Your task to perform on an android device: When is my next appointment? Image 0: 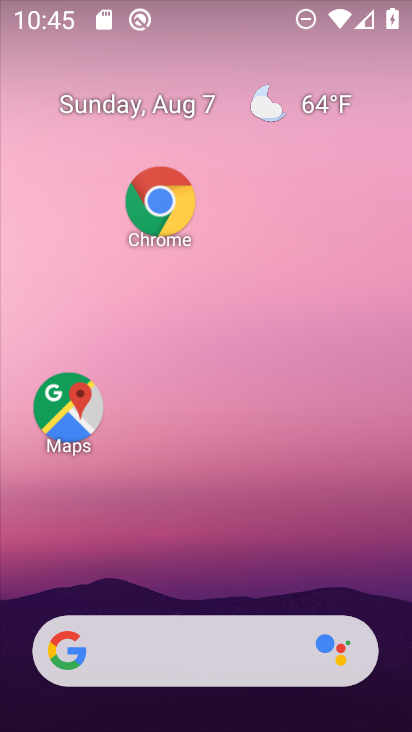
Step 0: drag from (212, 616) to (244, 10)
Your task to perform on an android device: When is my next appointment? Image 1: 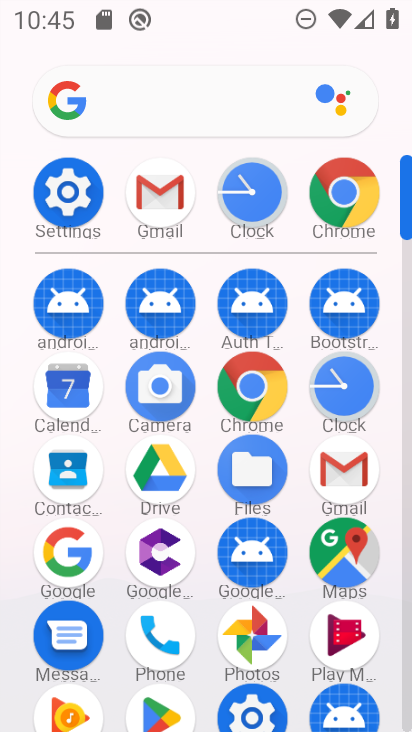
Step 1: click (72, 413)
Your task to perform on an android device: When is my next appointment? Image 2: 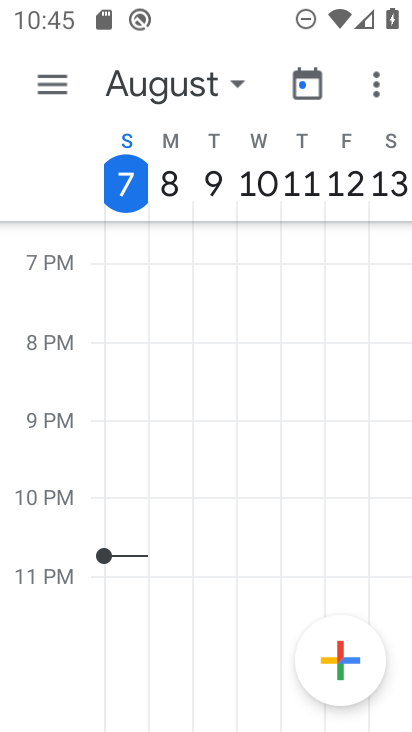
Step 2: task complete